Your task to perform on an android device: Go to privacy settings Image 0: 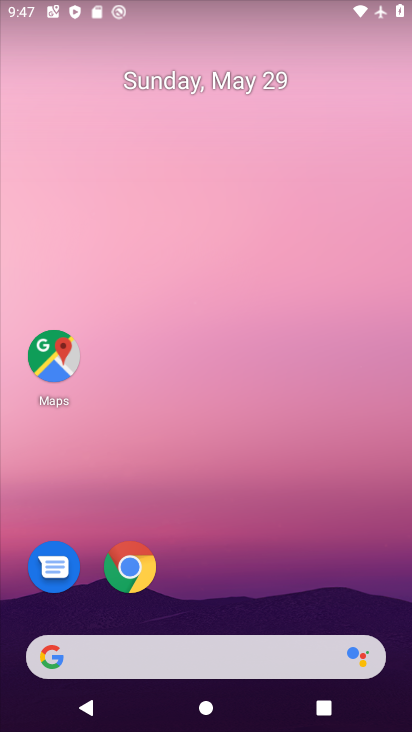
Step 0: drag from (397, 612) to (337, 70)
Your task to perform on an android device: Go to privacy settings Image 1: 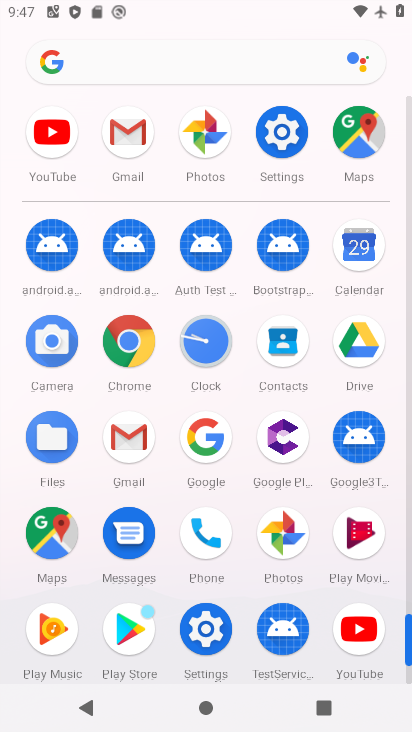
Step 1: click (208, 630)
Your task to perform on an android device: Go to privacy settings Image 2: 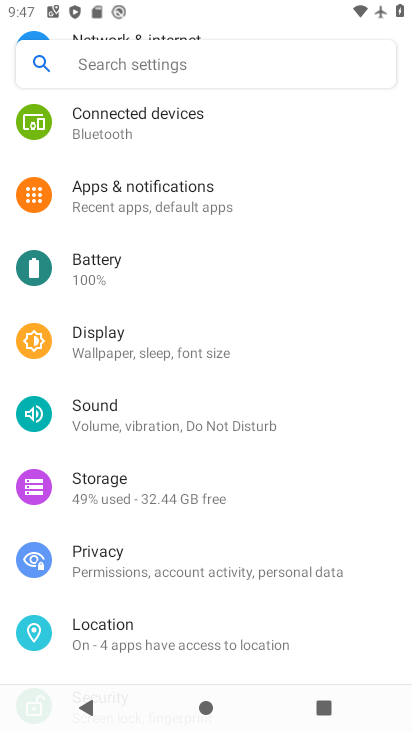
Step 2: click (96, 562)
Your task to perform on an android device: Go to privacy settings Image 3: 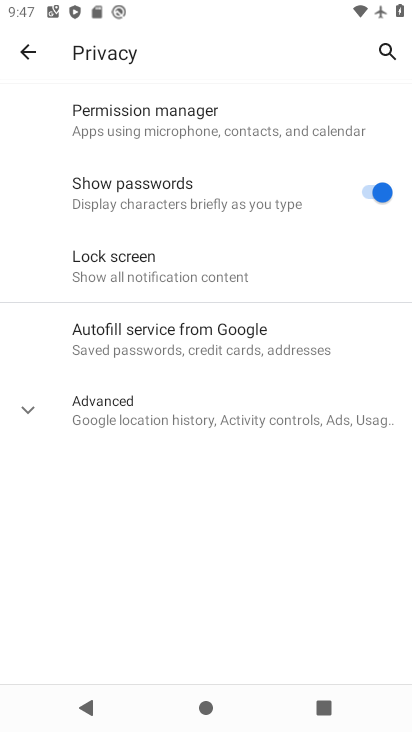
Step 3: click (26, 410)
Your task to perform on an android device: Go to privacy settings Image 4: 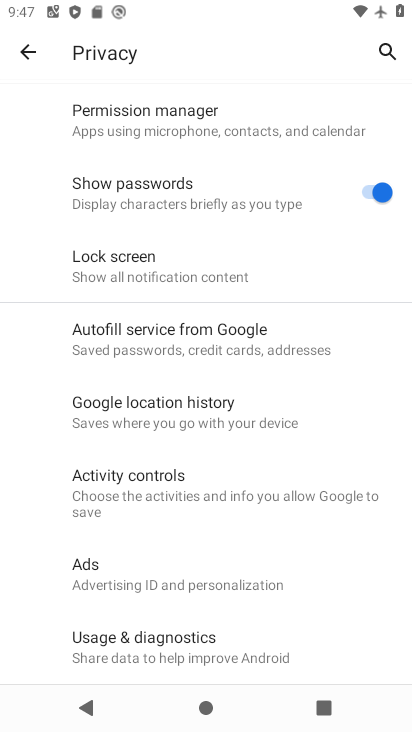
Step 4: task complete